Your task to perform on an android device: allow notifications from all sites in the chrome app Image 0: 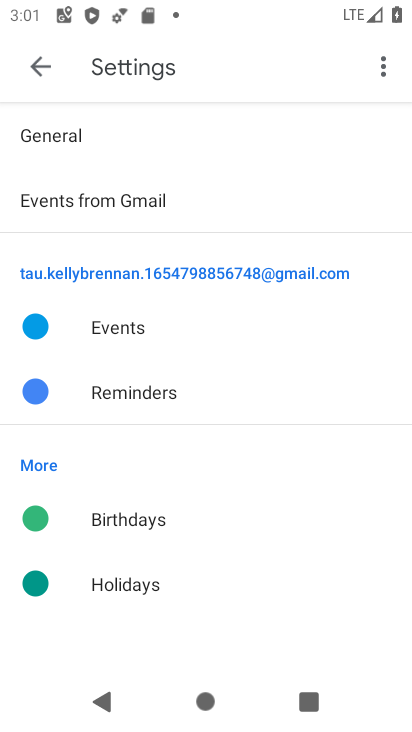
Step 0: press home button
Your task to perform on an android device: allow notifications from all sites in the chrome app Image 1: 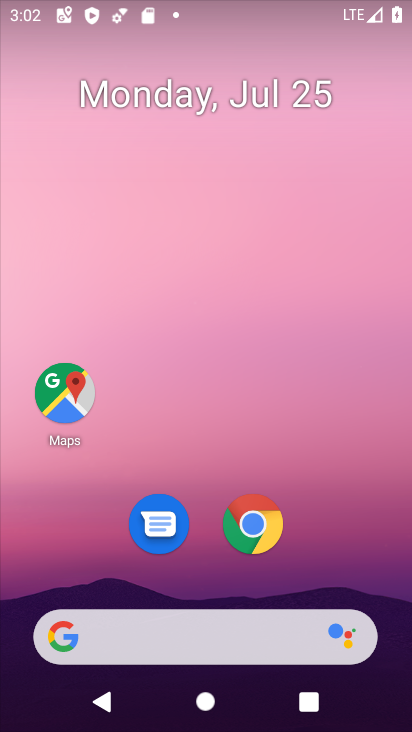
Step 1: click (266, 530)
Your task to perform on an android device: allow notifications from all sites in the chrome app Image 2: 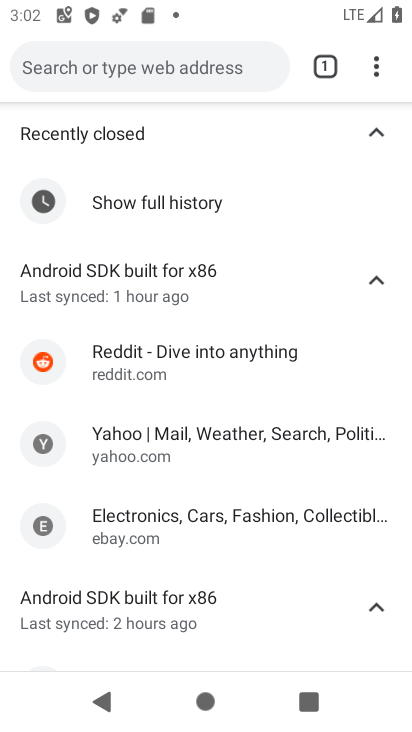
Step 2: click (373, 69)
Your task to perform on an android device: allow notifications from all sites in the chrome app Image 3: 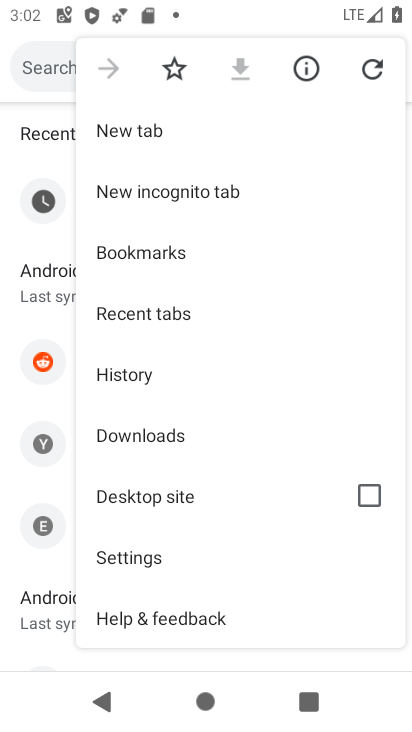
Step 3: click (144, 555)
Your task to perform on an android device: allow notifications from all sites in the chrome app Image 4: 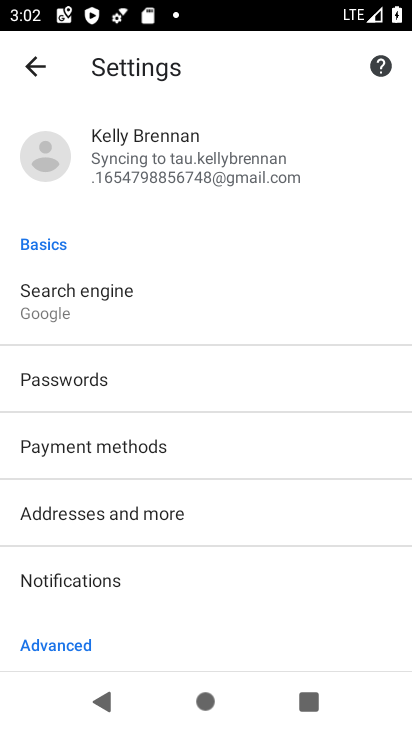
Step 4: drag from (239, 562) to (292, 215)
Your task to perform on an android device: allow notifications from all sites in the chrome app Image 5: 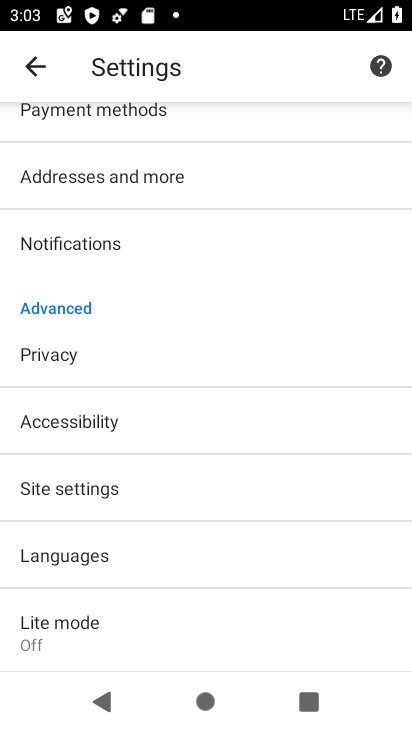
Step 5: click (149, 242)
Your task to perform on an android device: allow notifications from all sites in the chrome app Image 6: 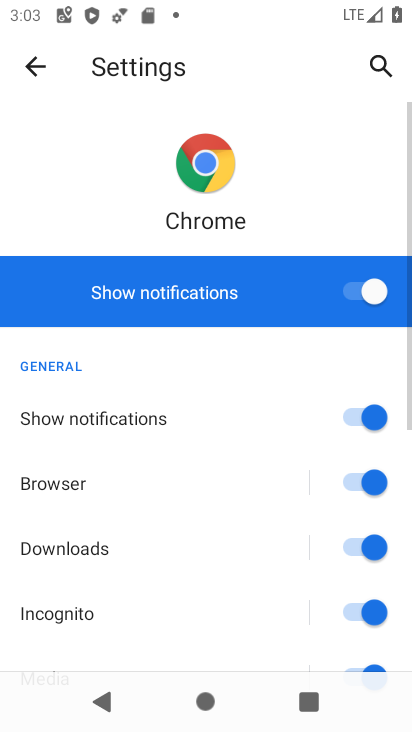
Step 6: task complete